Your task to perform on an android device: clear history in the chrome app Image 0: 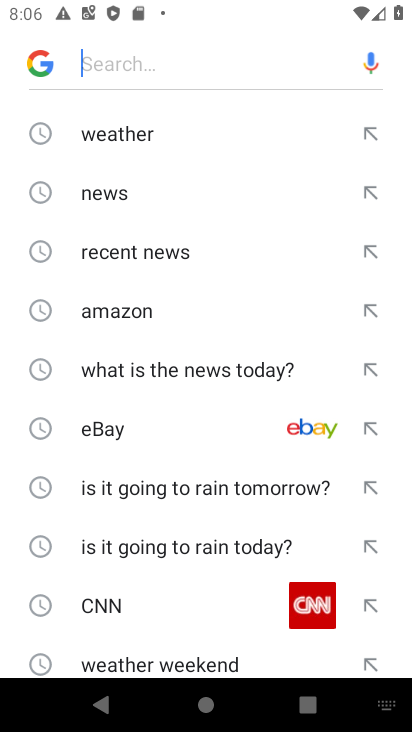
Step 0: press home button
Your task to perform on an android device: clear history in the chrome app Image 1: 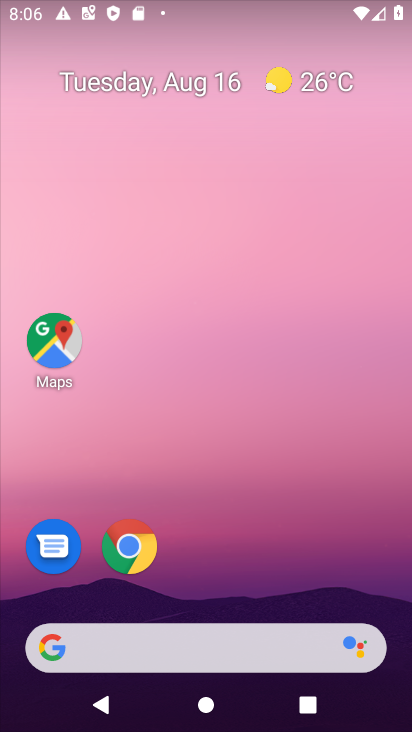
Step 1: click (122, 552)
Your task to perform on an android device: clear history in the chrome app Image 2: 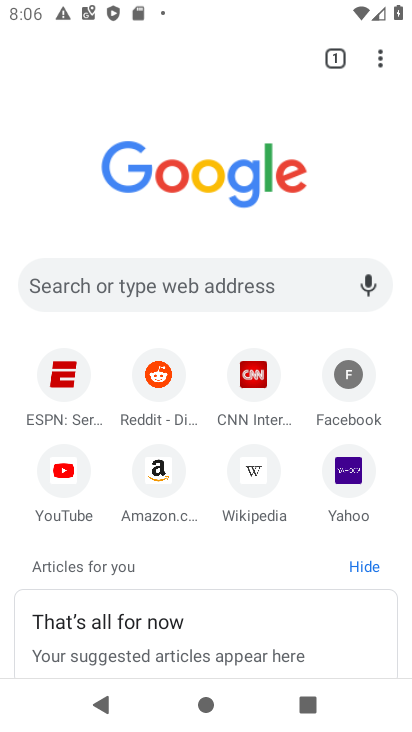
Step 2: click (377, 57)
Your task to perform on an android device: clear history in the chrome app Image 3: 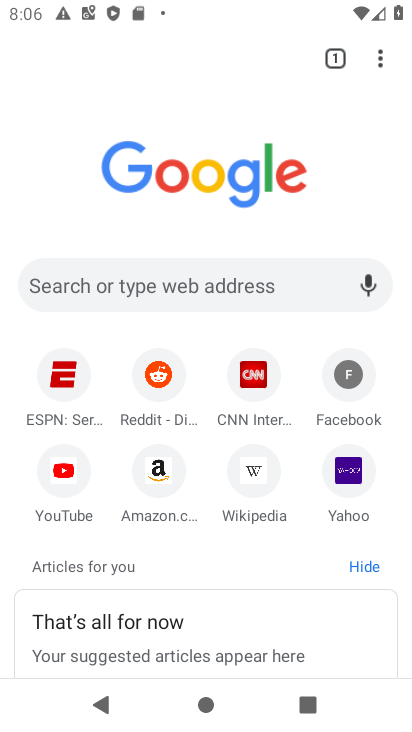
Step 3: click (386, 60)
Your task to perform on an android device: clear history in the chrome app Image 4: 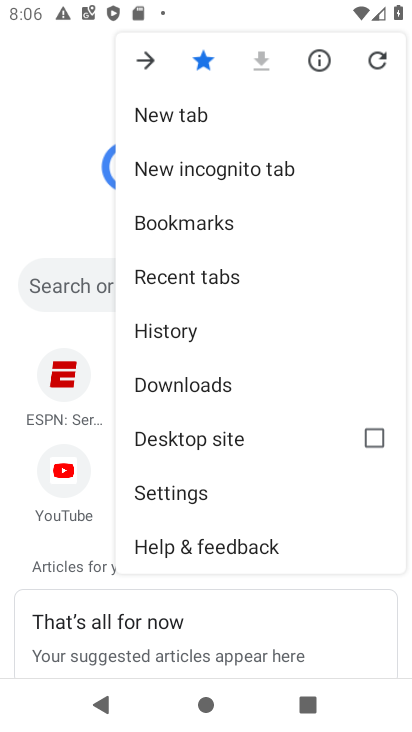
Step 4: click (197, 328)
Your task to perform on an android device: clear history in the chrome app Image 5: 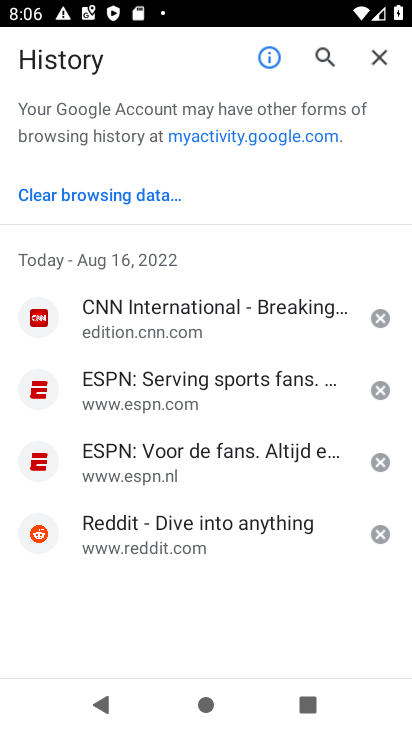
Step 5: click (117, 187)
Your task to perform on an android device: clear history in the chrome app Image 6: 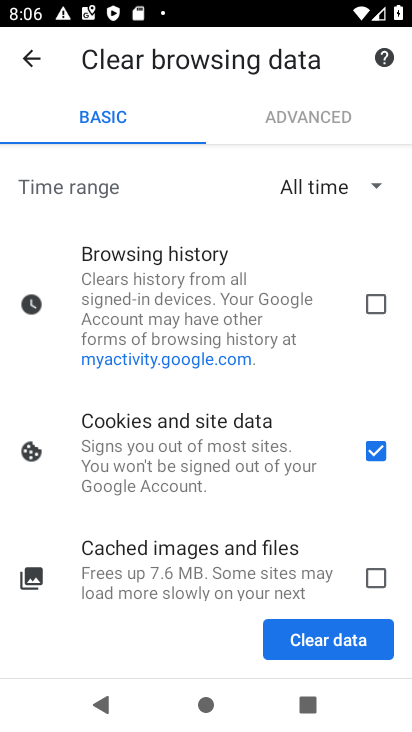
Step 6: click (378, 303)
Your task to perform on an android device: clear history in the chrome app Image 7: 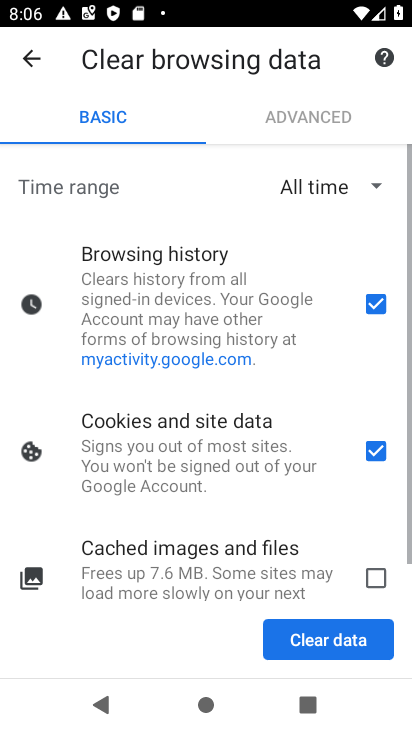
Step 7: click (369, 449)
Your task to perform on an android device: clear history in the chrome app Image 8: 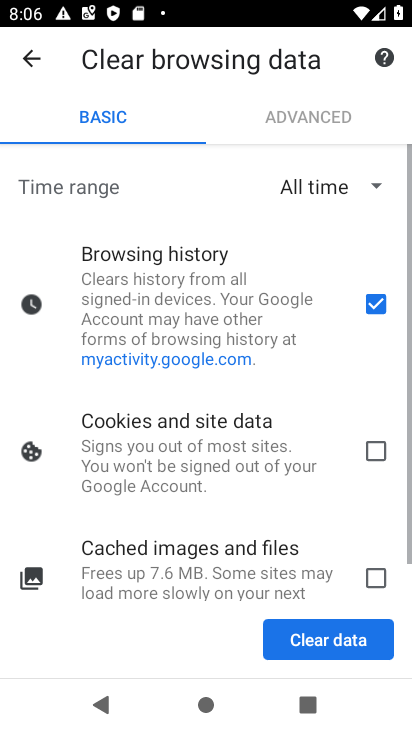
Step 8: click (354, 652)
Your task to perform on an android device: clear history in the chrome app Image 9: 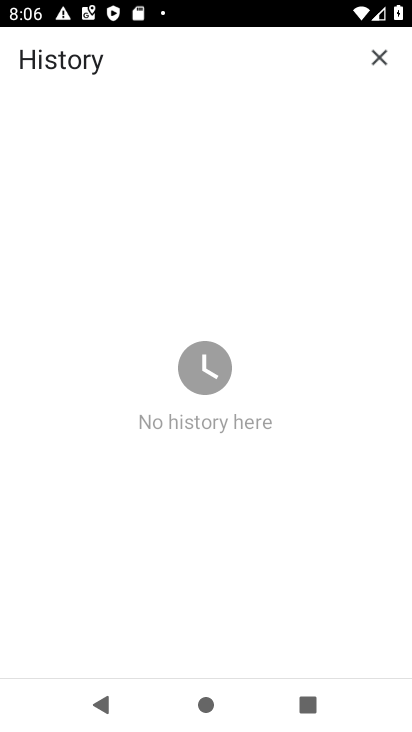
Step 9: task complete